Your task to perform on an android device: Do I have any events tomorrow? Image 0: 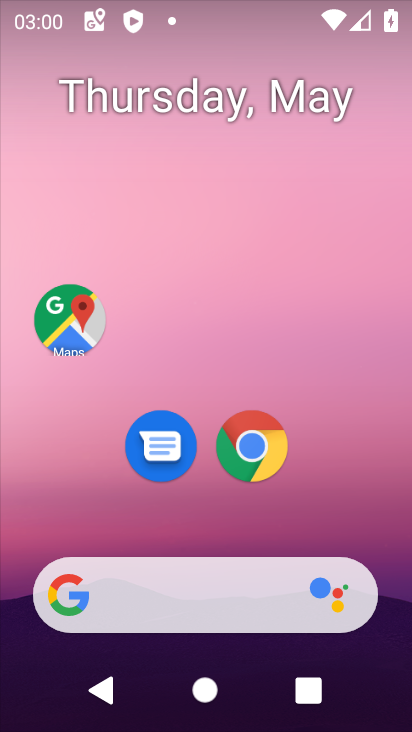
Step 0: drag from (371, 472) to (364, 5)
Your task to perform on an android device: Do I have any events tomorrow? Image 1: 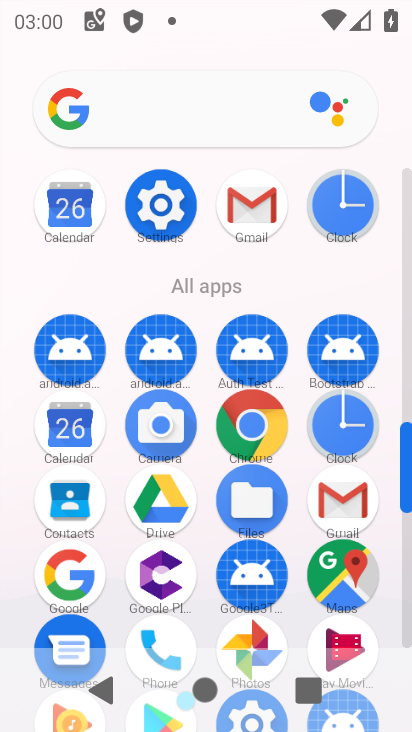
Step 1: click (65, 210)
Your task to perform on an android device: Do I have any events tomorrow? Image 2: 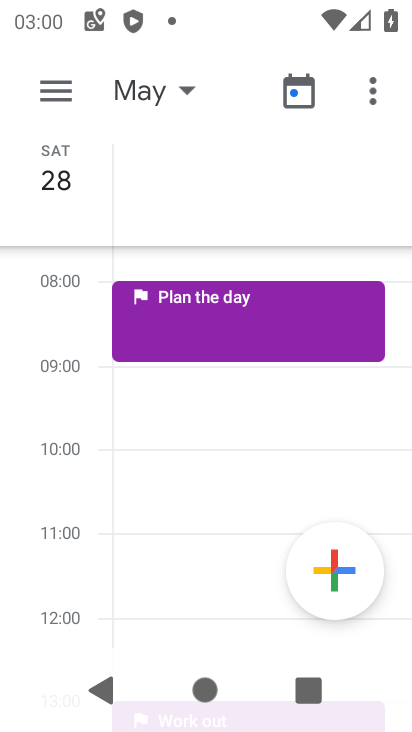
Step 2: click (192, 91)
Your task to perform on an android device: Do I have any events tomorrow? Image 3: 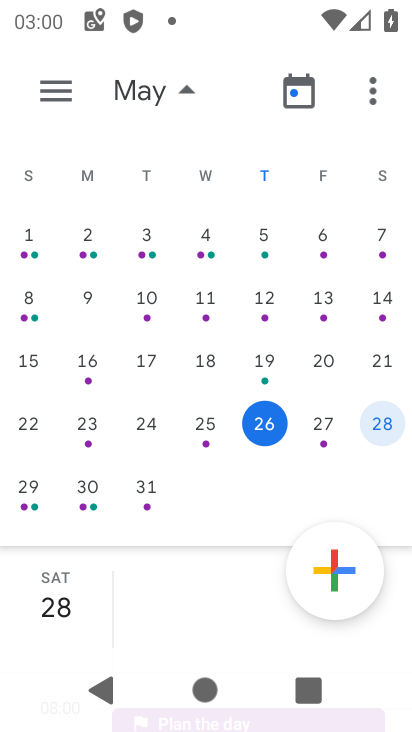
Step 3: click (321, 424)
Your task to perform on an android device: Do I have any events tomorrow? Image 4: 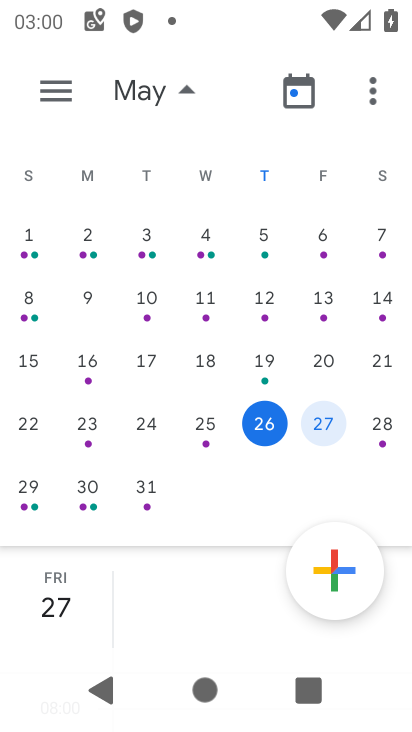
Step 4: drag from (148, 491) to (171, 151)
Your task to perform on an android device: Do I have any events tomorrow? Image 5: 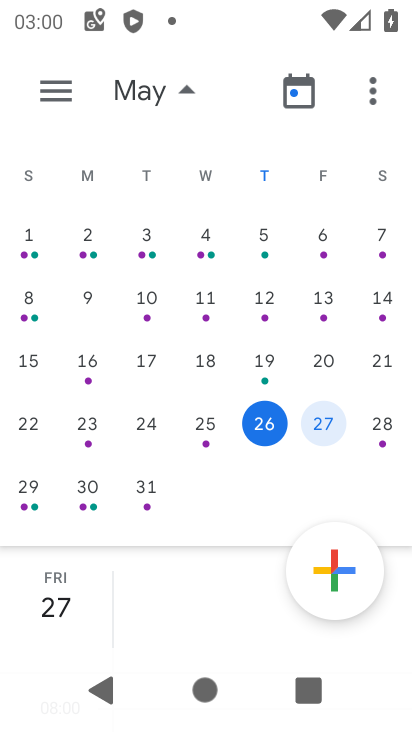
Step 5: drag from (183, 543) to (186, 132)
Your task to perform on an android device: Do I have any events tomorrow? Image 6: 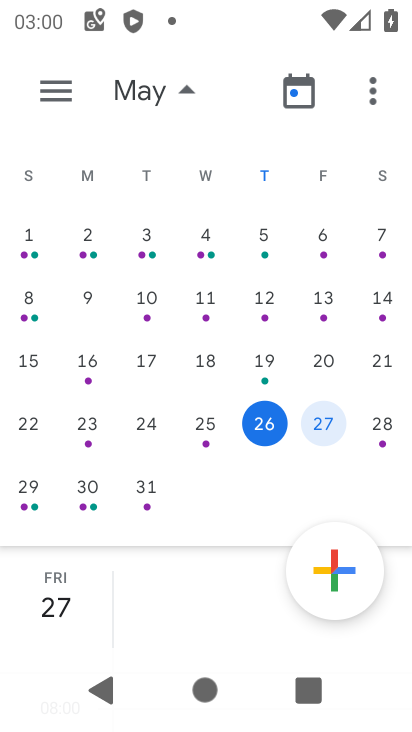
Step 6: drag from (208, 564) to (204, 79)
Your task to perform on an android device: Do I have any events tomorrow? Image 7: 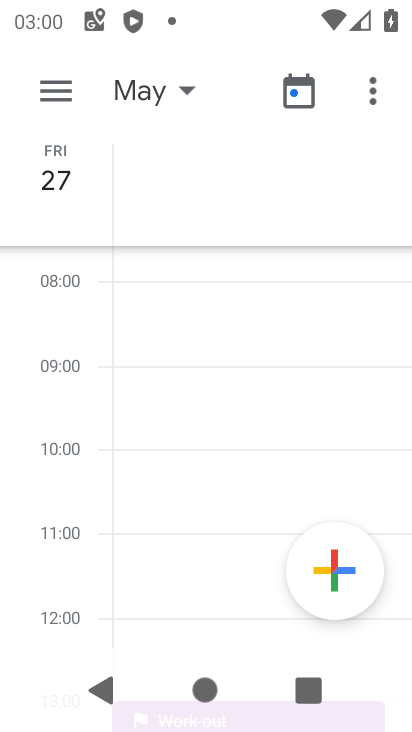
Step 7: drag from (197, 470) to (188, 106)
Your task to perform on an android device: Do I have any events tomorrow? Image 8: 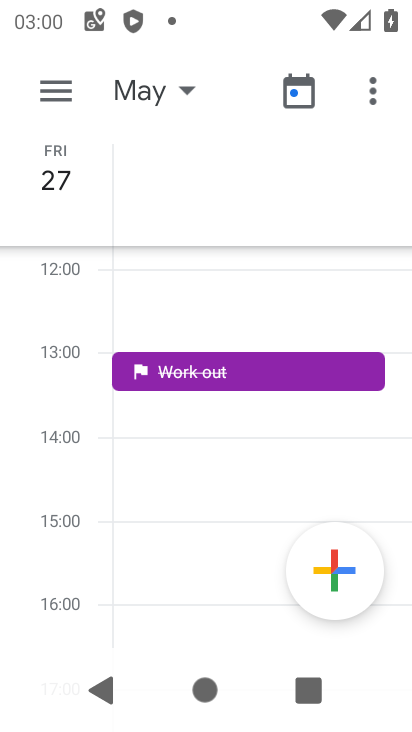
Step 8: drag from (176, 503) to (193, 212)
Your task to perform on an android device: Do I have any events tomorrow? Image 9: 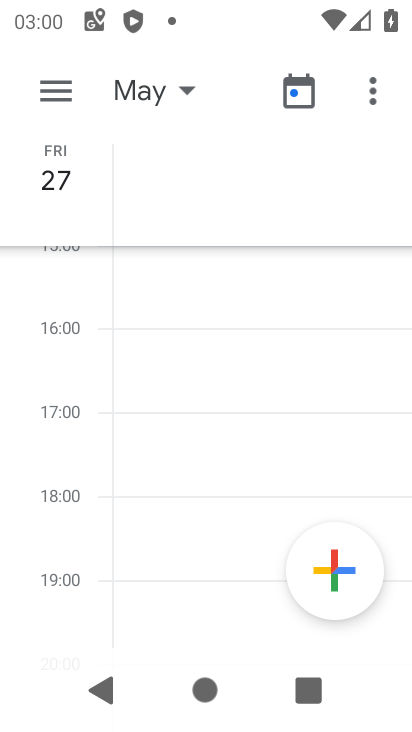
Step 9: drag from (193, 278) to (198, 535)
Your task to perform on an android device: Do I have any events tomorrow? Image 10: 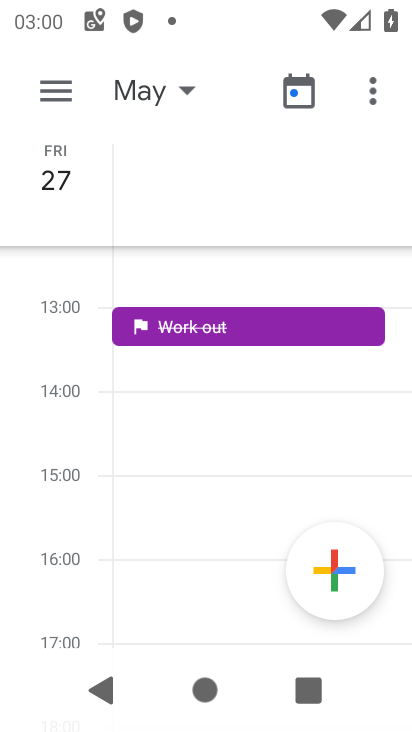
Step 10: click (237, 328)
Your task to perform on an android device: Do I have any events tomorrow? Image 11: 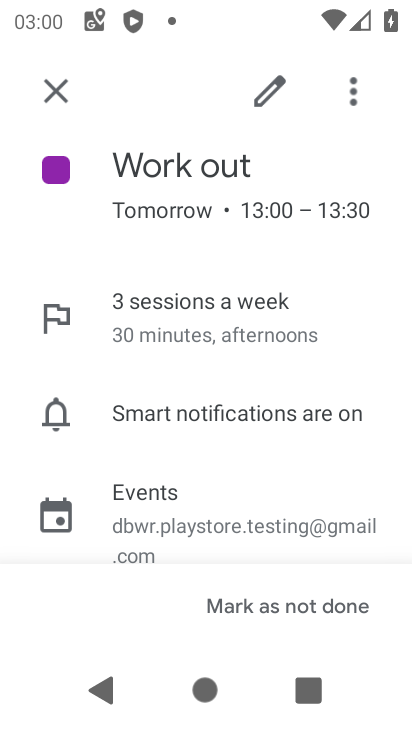
Step 11: task complete